Your task to perform on an android device: What's on my calendar today? Image 0: 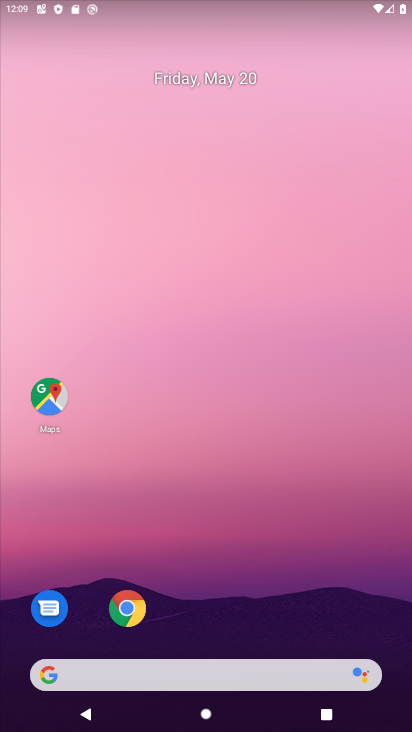
Step 0: drag from (310, 583) to (308, 96)
Your task to perform on an android device: What's on my calendar today? Image 1: 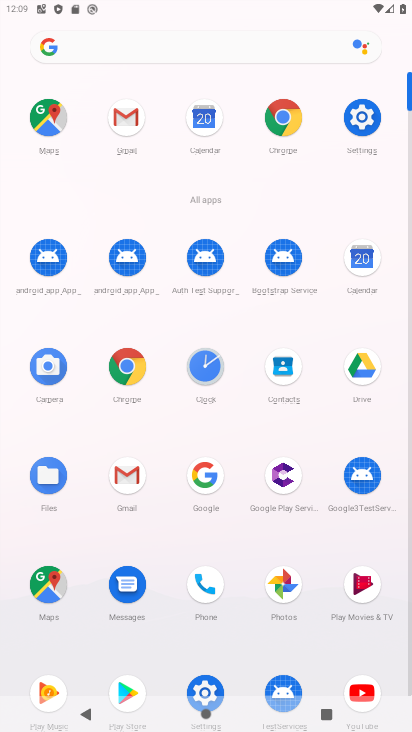
Step 1: click (375, 277)
Your task to perform on an android device: What's on my calendar today? Image 2: 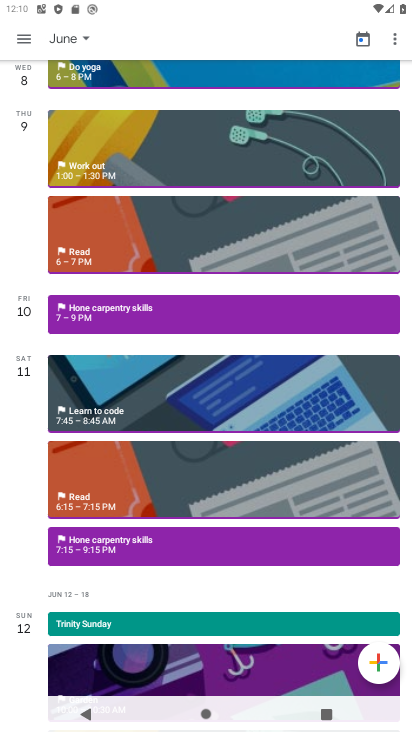
Step 2: click (58, 40)
Your task to perform on an android device: What's on my calendar today? Image 3: 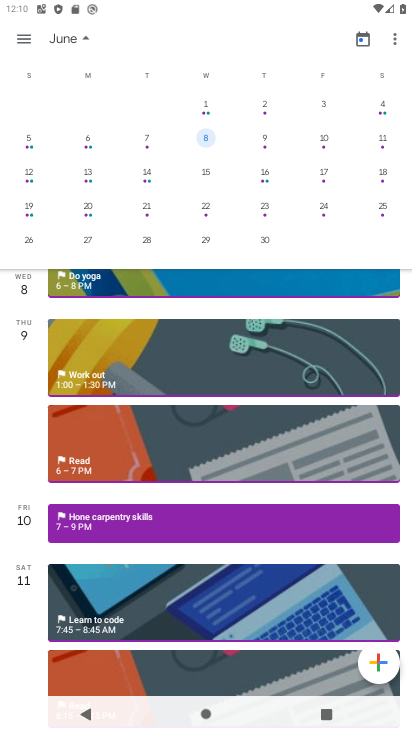
Step 3: drag from (118, 168) to (371, 160)
Your task to perform on an android device: What's on my calendar today? Image 4: 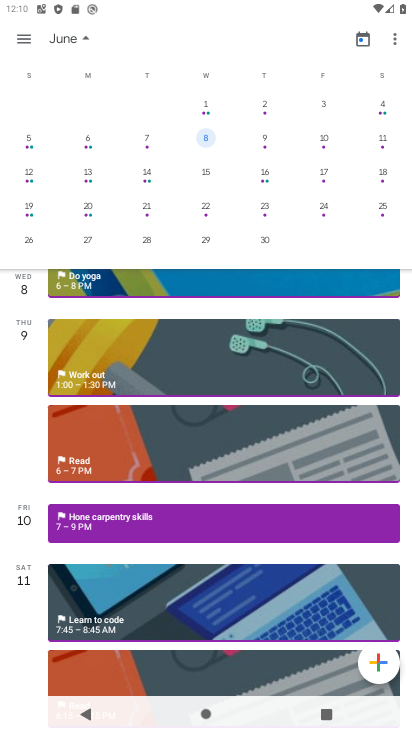
Step 4: drag from (155, 167) to (396, 145)
Your task to perform on an android device: What's on my calendar today? Image 5: 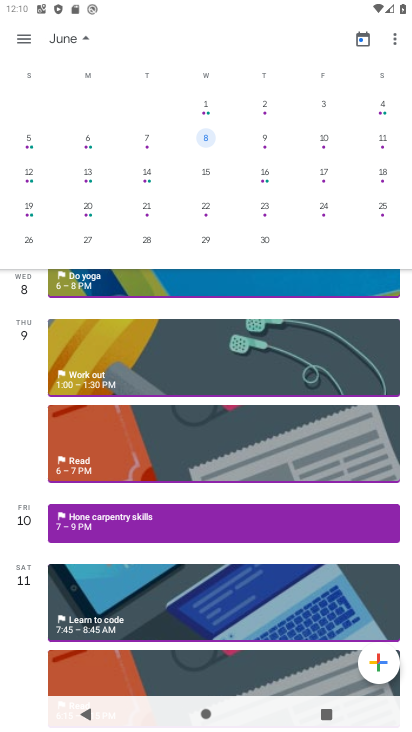
Step 5: drag from (159, 150) to (397, 138)
Your task to perform on an android device: What's on my calendar today? Image 6: 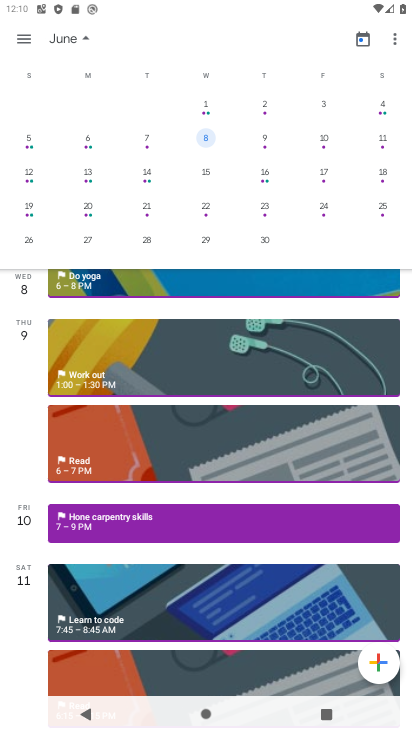
Step 6: drag from (94, 156) to (411, 171)
Your task to perform on an android device: What's on my calendar today? Image 7: 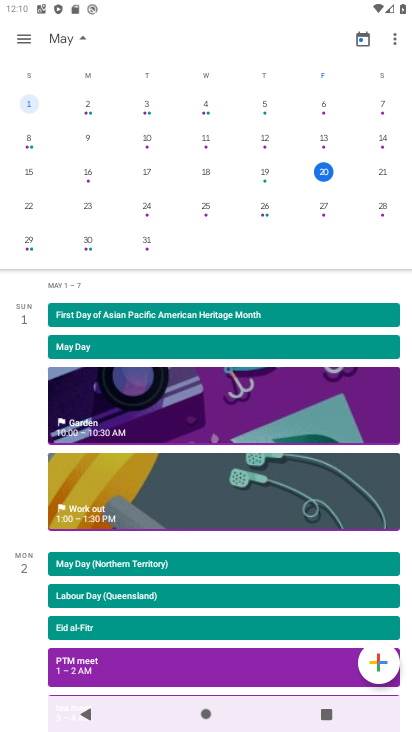
Step 7: click (326, 170)
Your task to perform on an android device: What's on my calendar today? Image 8: 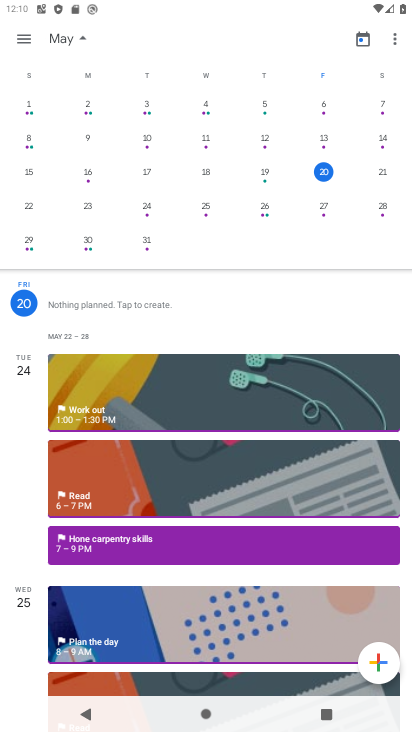
Step 8: task complete